Your task to perform on an android device: What is the recent news? Image 0: 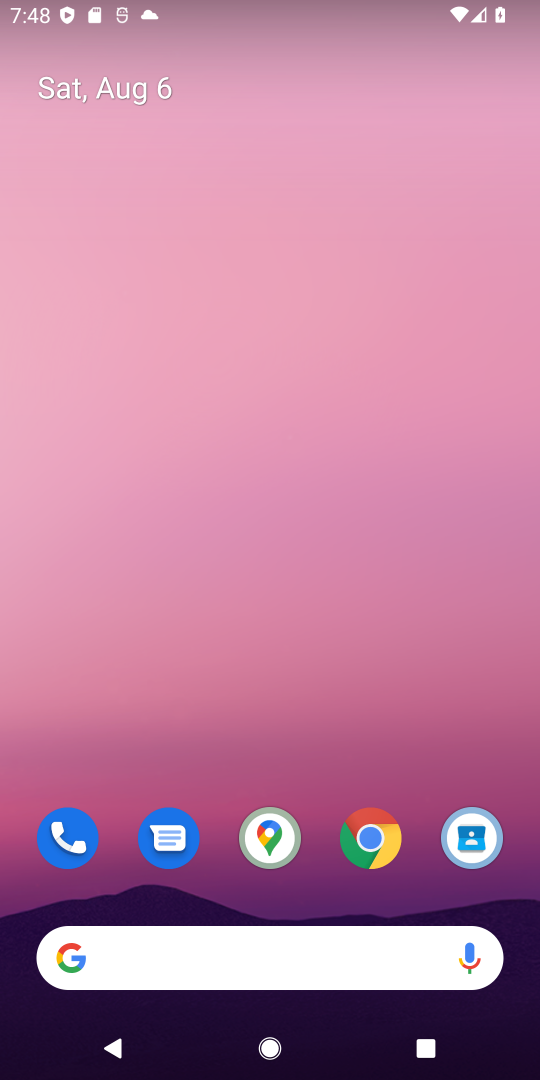
Step 0: click (235, 961)
Your task to perform on an android device: What is the recent news? Image 1: 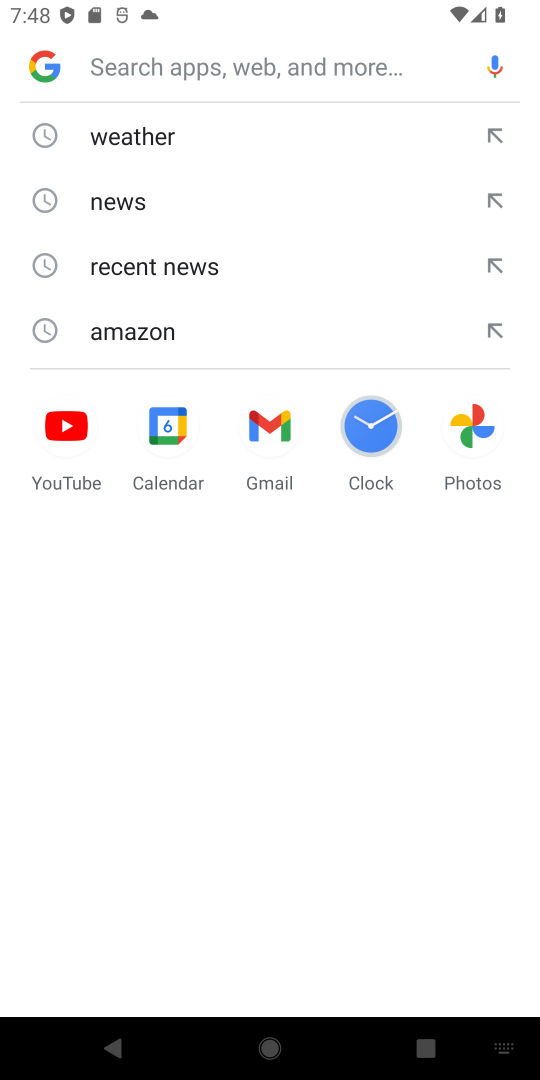
Step 1: click (129, 271)
Your task to perform on an android device: What is the recent news? Image 2: 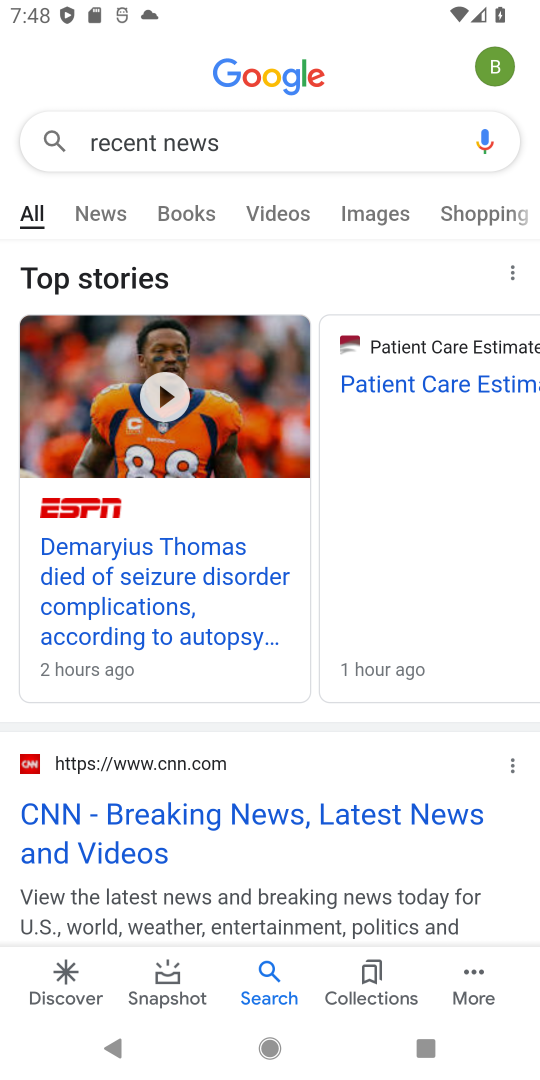
Step 2: task complete